Your task to perform on an android device: turn on wifi Image 0: 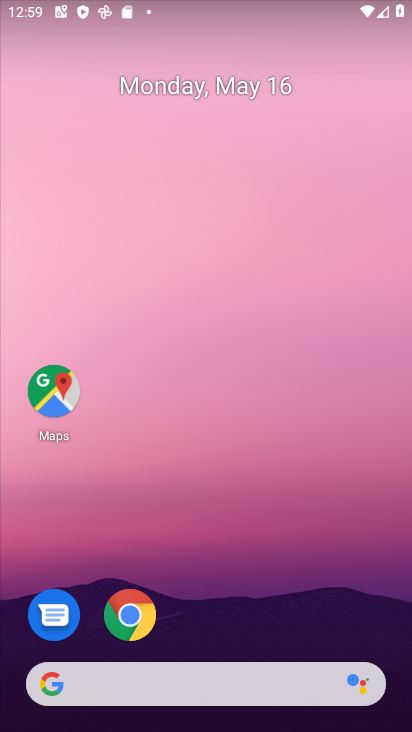
Step 0: drag from (202, 676) to (349, 10)
Your task to perform on an android device: turn on wifi Image 1: 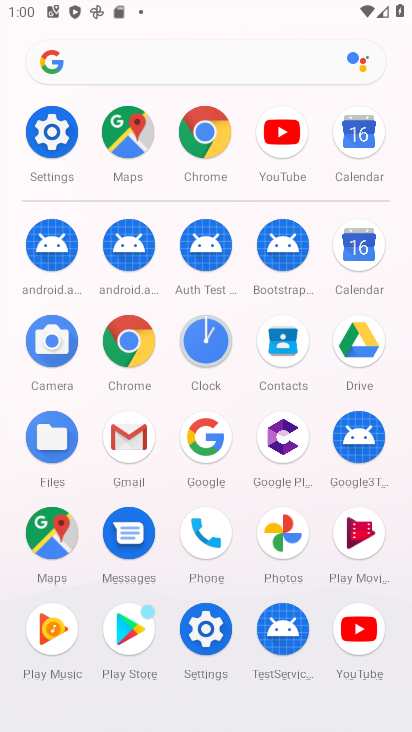
Step 1: click (39, 138)
Your task to perform on an android device: turn on wifi Image 2: 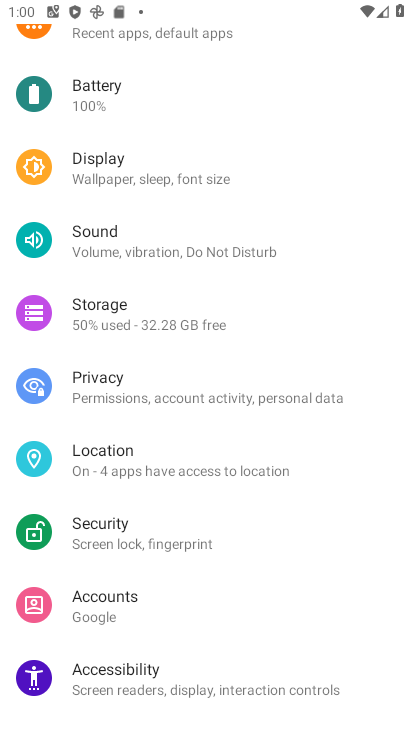
Step 2: drag from (215, 131) to (212, 721)
Your task to perform on an android device: turn on wifi Image 3: 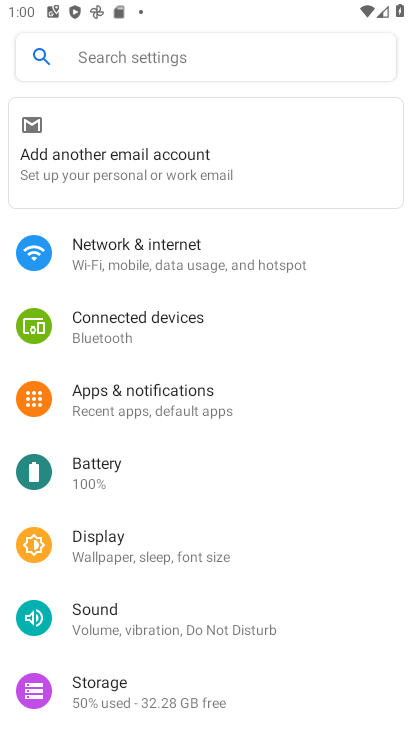
Step 3: click (202, 261)
Your task to perform on an android device: turn on wifi Image 4: 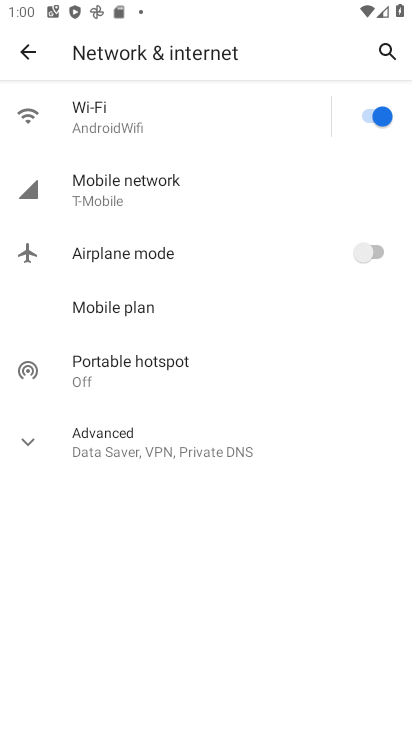
Step 4: task complete